Your task to perform on an android device: delete location history Image 0: 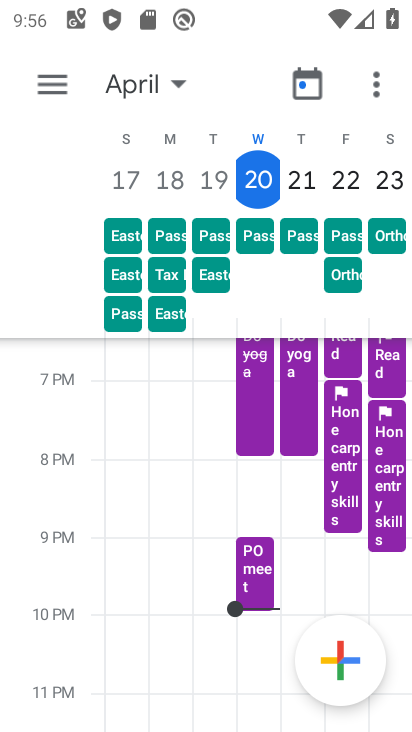
Step 0: press back button
Your task to perform on an android device: delete location history Image 1: 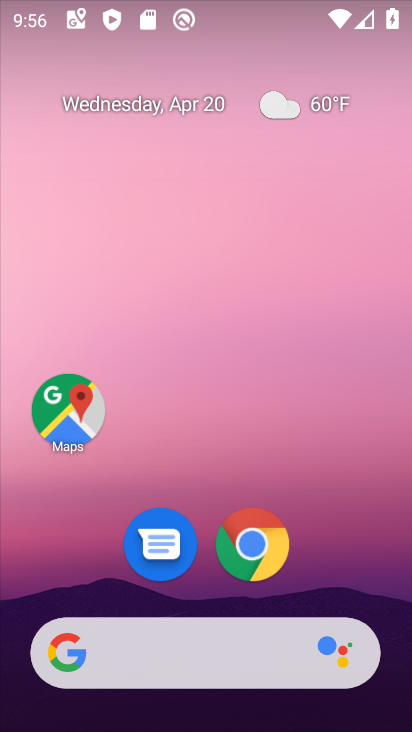
Step 1: click (71, 397)
Your task to perform on an android device: delete location history Image 2: 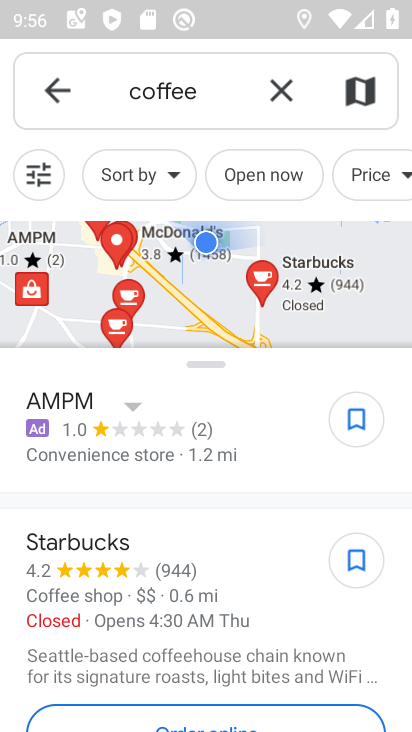
Step 2: click (74, 87)
Your task to perform on an android device: delete location history Image 3: 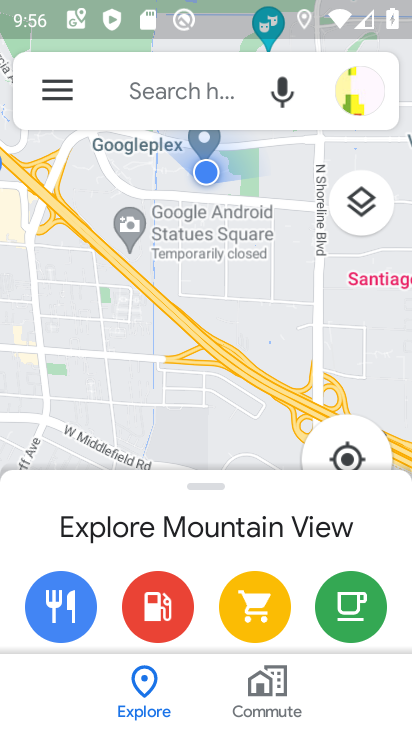
Step 3: click (62, 88)
Your task to perform on an android device: delete location history Image 4: 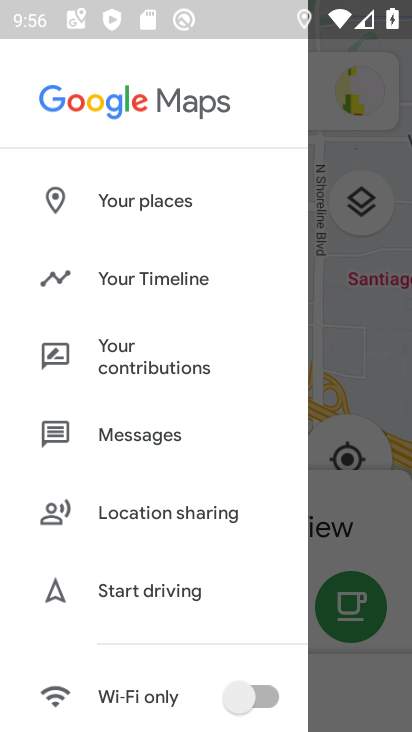
Step 4: click (214, 284)
Your task to perform on an android device: delete location history Image 5: 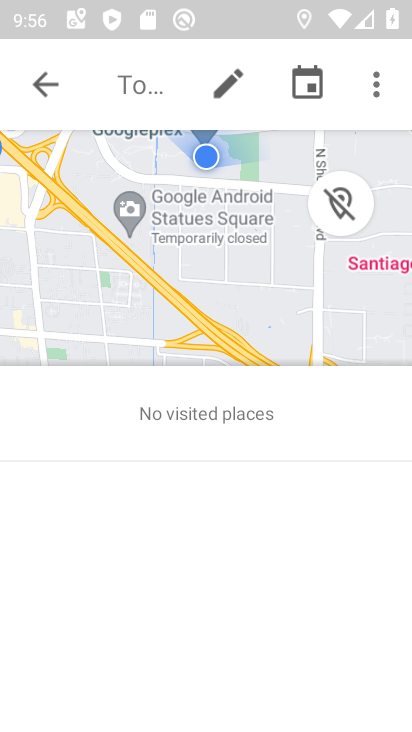
Step 5: click (372, 76)
Your task to perform on an android device: delete location history Image 6: 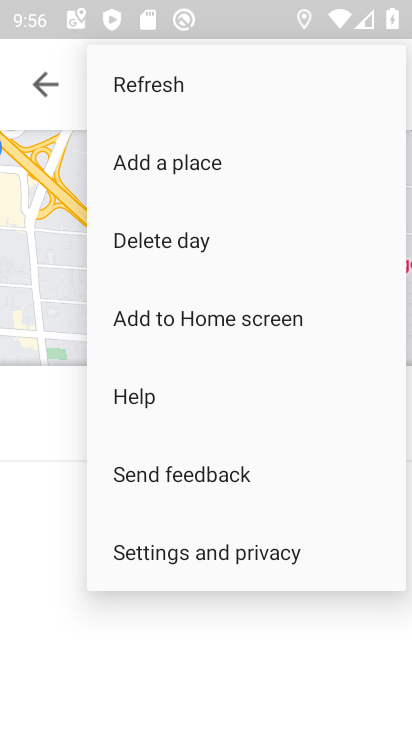
Step 6: click (220, 535)
Your task to perform on an android device: delete location history Image 7: 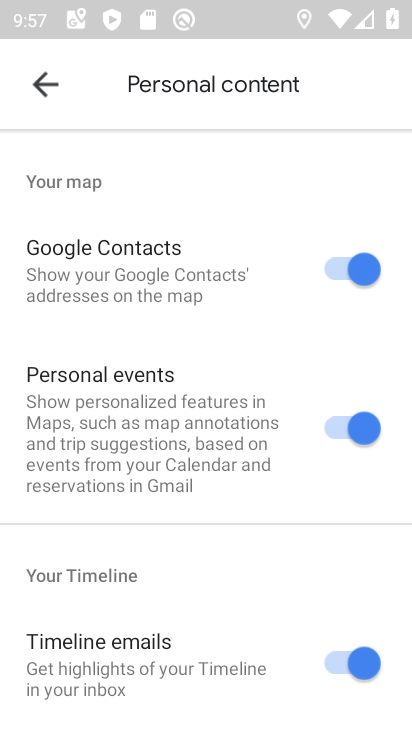
Step 7: drag from (223, 585) to (224, 186)
Your task to perform on an android device: delete location history Image 8: 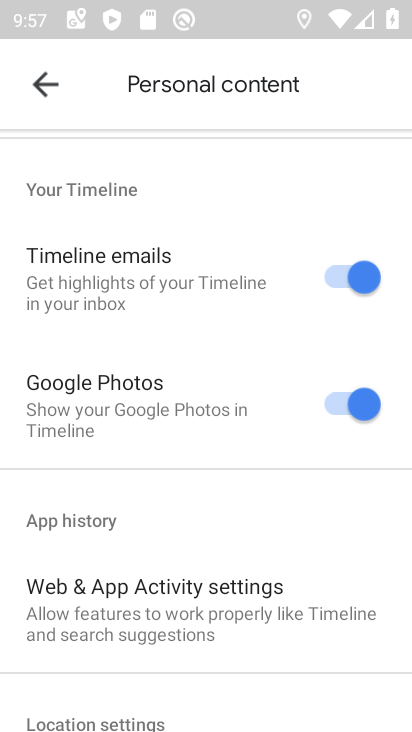
Step 8: drag from (243, 526) to (214, 180)
Your task to perform on an android device: delete location history Image 9: 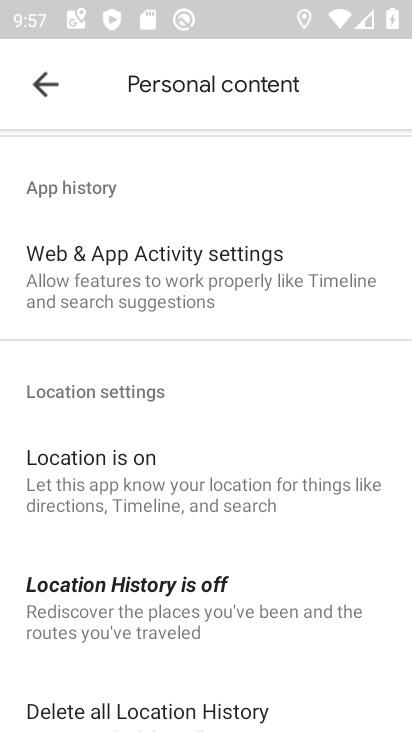
Step 9: click (218, 706)
Your task to perform on an android device: delete location history Image 10: 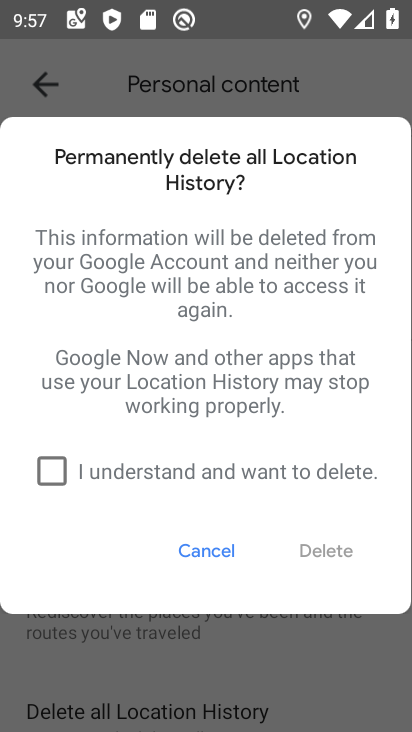
Step 10: click (278, 478)
Your task to perform on an android device: delete location history Image 11: 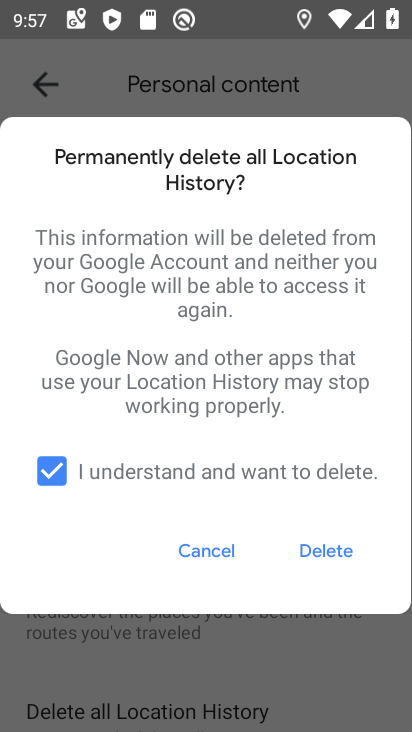
Step 11: click (331, 547)
Your task to perform on an android device: delete location history Image 12: 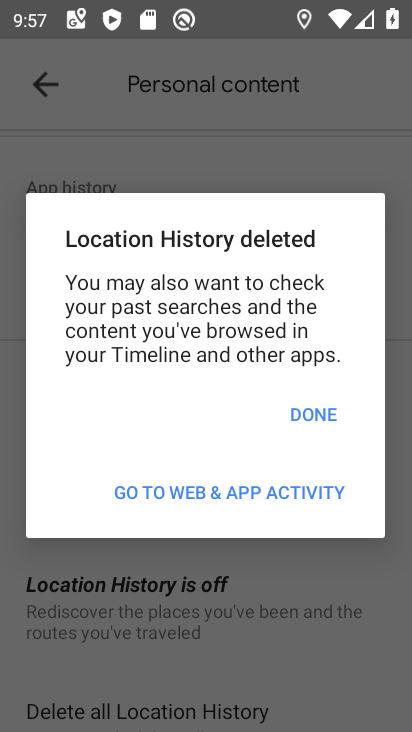
Step 12: click (328, 425)
Your task to perform on an android device: delete location history Image 13: 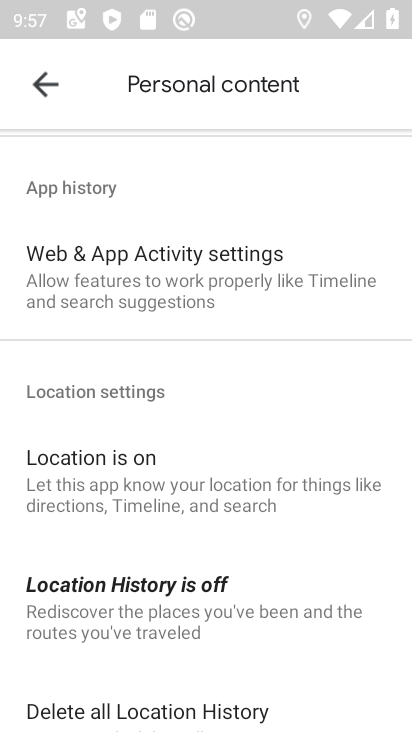
Step 13: task complete